Your task to perform on an android device: What's on my calendar today? Image 0: 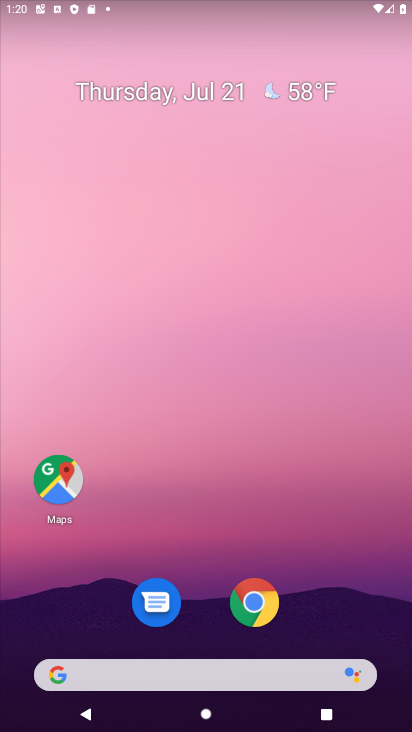
Step 0: drag from (382, 619) to (252, 124)
Your task to perform on an android device: What's on my calendar today? Image 1: 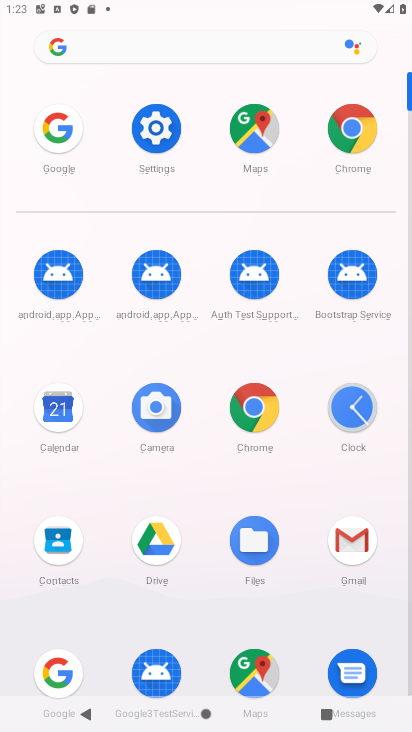
Step 1: click (43, 433)
Your task to perform on an android device: What's on my calendar today? Image 2: 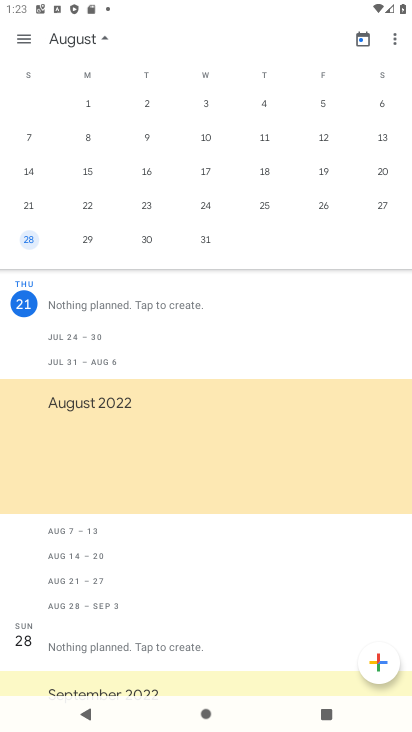
Step 2: task complete